Your task to perform on an android device: Open eBay Image 0: 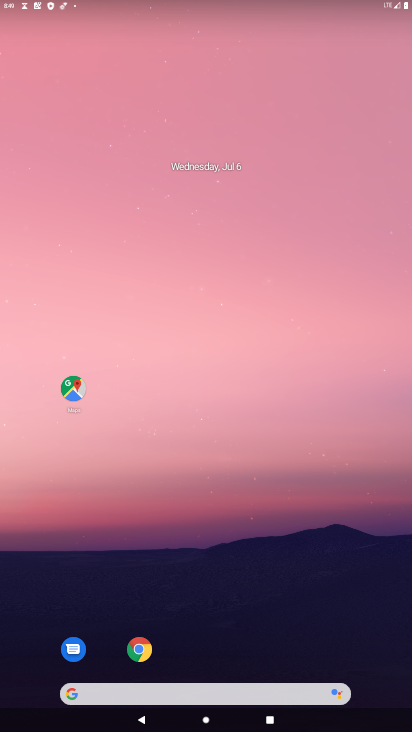
Step 0: drag from (239, 652) to (230, 72)
Your task to perform on an android device: Open eBay Image 1: 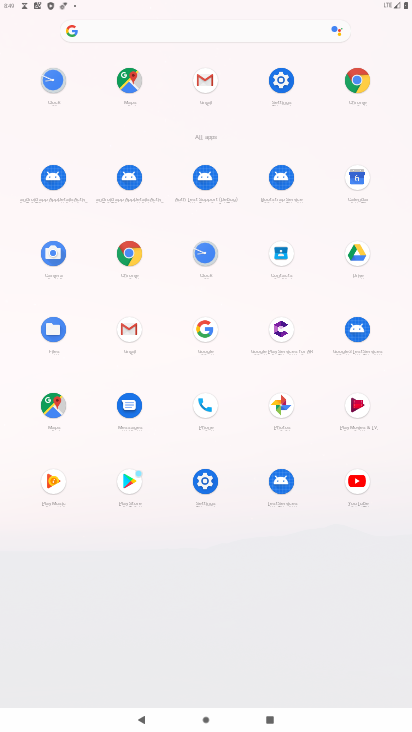
Step 1: click (355, 74)
Your task to perform on an android device: Open eBay Image 2: 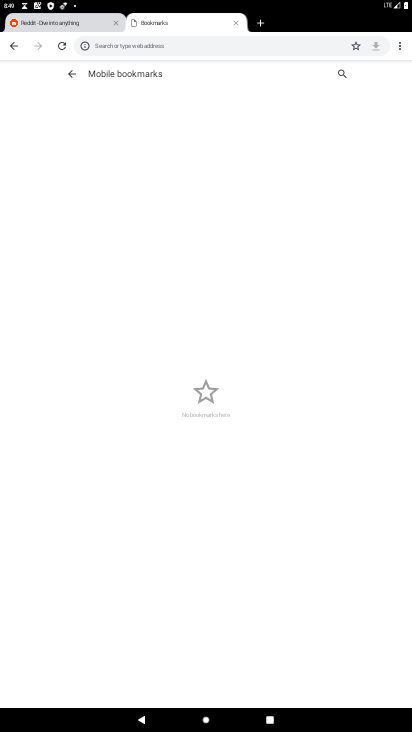
Step 2: click (253, 23)
Your task to perform on an android device: Open eBay Image 3: 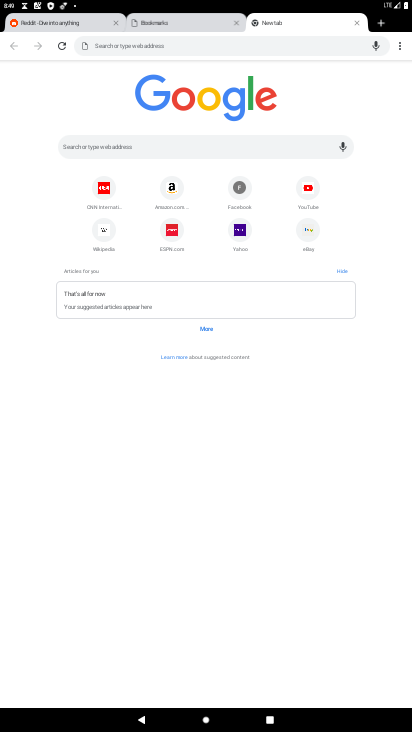
Step 3: click (176, 44)
Your task to perform on an android device: Open eBay Image 4: 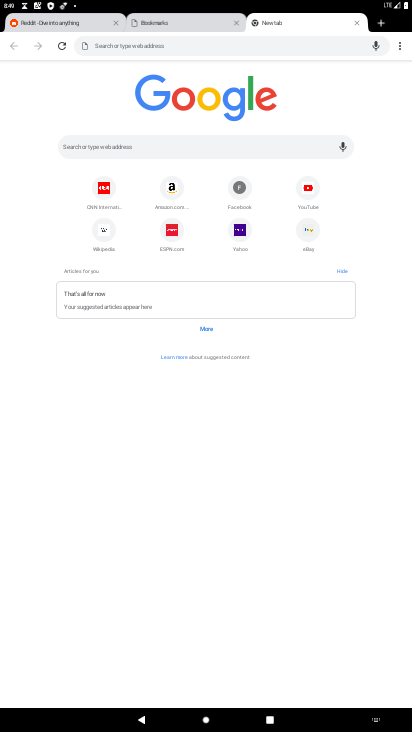
Step 4: type "ebay"
Your task to perform on an android device: Open eBay Image 5: 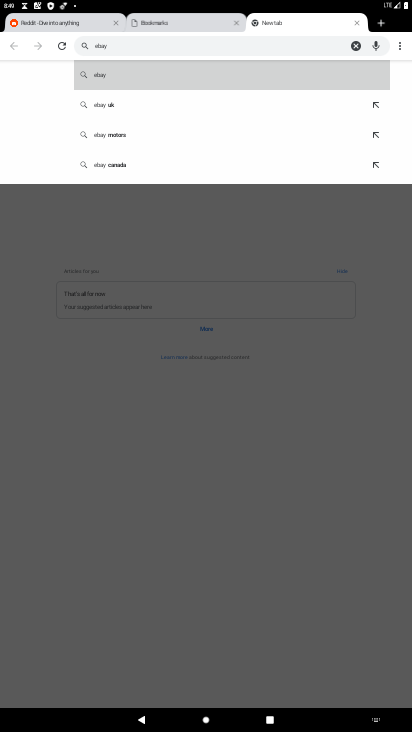
Step 5: click (134, 74)
Your task to perform on an android device: Open eBay Image 6: 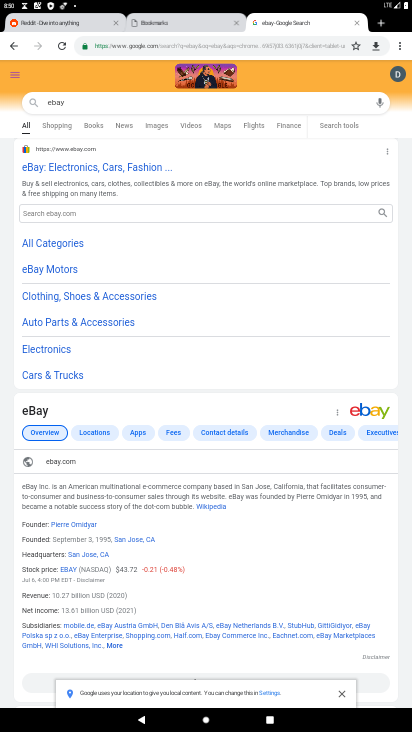
Step 6: click (92, 165)
Your task to perform on an android device: Open eBay Image 7: 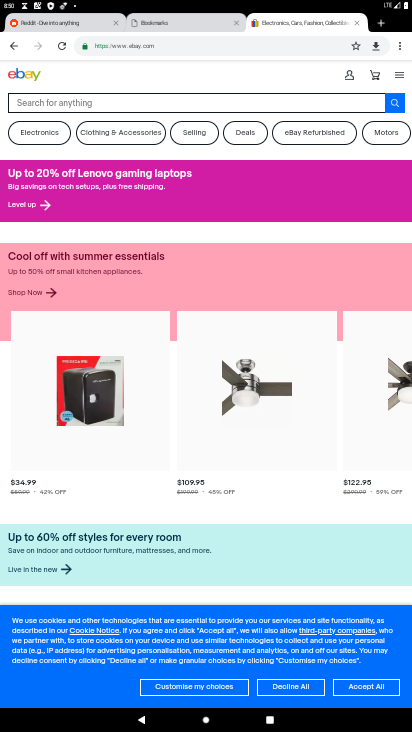
Step 7: click (362, 682)
Your task to perform on an android device: Open eBay Image 8: 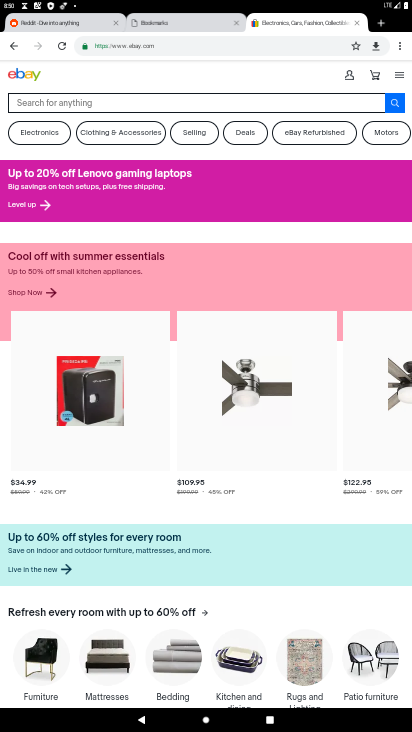
Step 8: task complete